Your task to perform on an android device: Open Wikipedia Image 0: 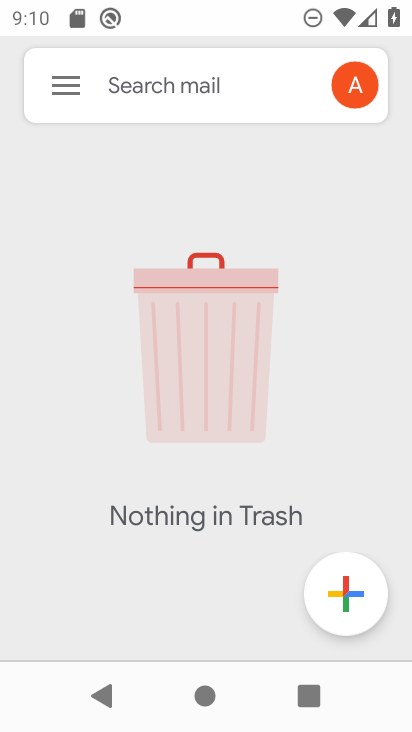
Step 0: press home button
Your task to perform on an android device: Open Wikipedia Image 1: 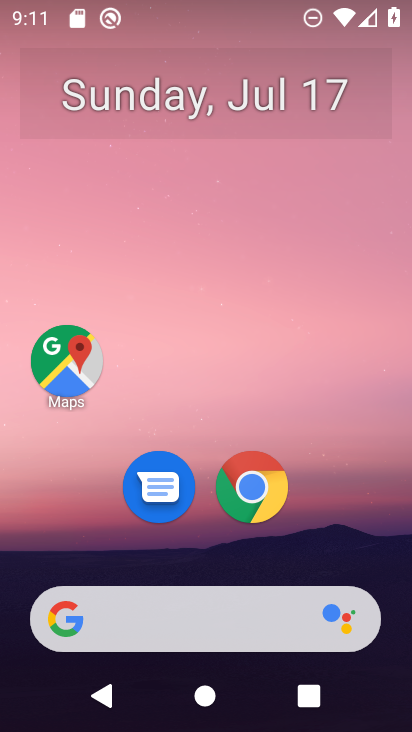
Step 1: click (79, 610)
Your task to perform on an android device: Open Wikipedia Image 2: 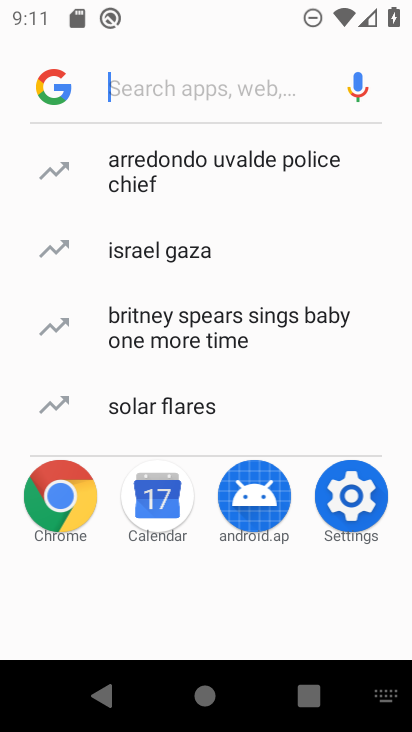
Step 2: type "Wikipedia"
Your task to perform on an android device: Open Wikipedia Image 3: 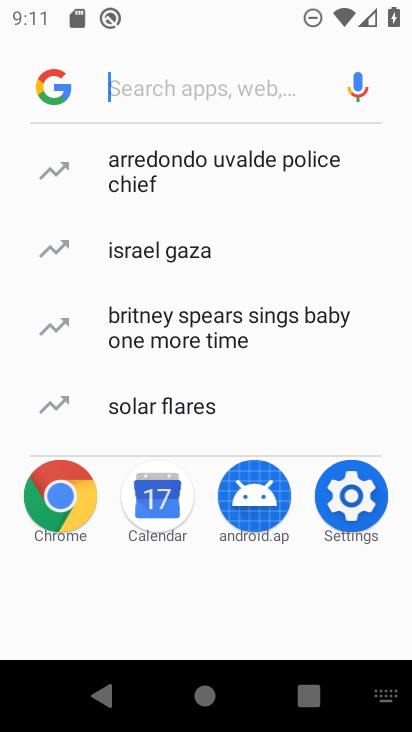
Step 3: click (189, 84)
Your task to perform on an android device: Open Wikipedia Image 4: 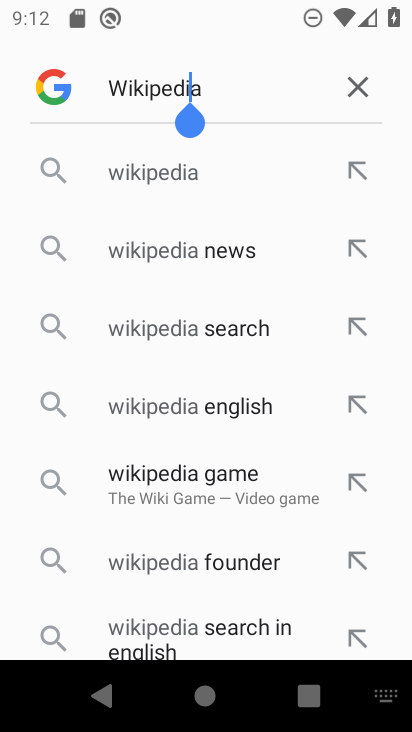
Step 4: press enter
Your task to perform on an android device: Open Wikipedia Image 5: 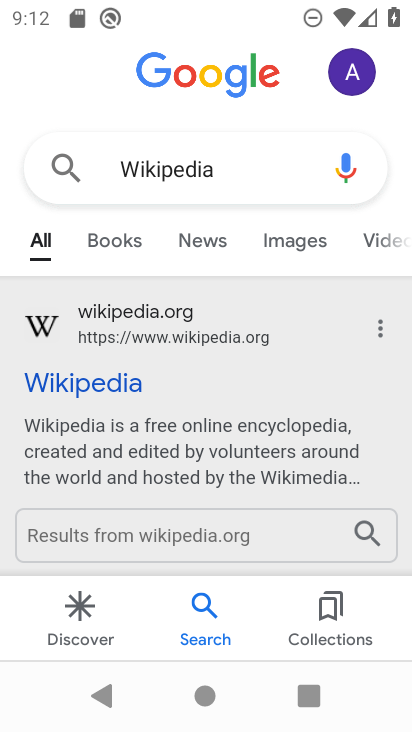
Step 5: click (86, 380)
Your task to perform on an android device: Open Wikipedia Image 6: 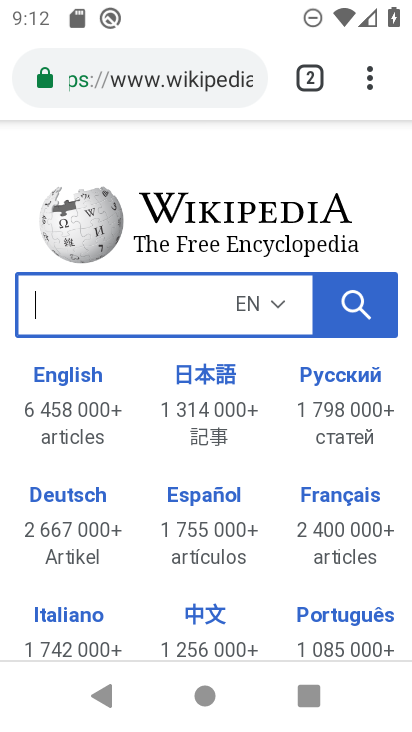
Step 6: task complete